Your task to perform on an android device: check google app version Image 0: 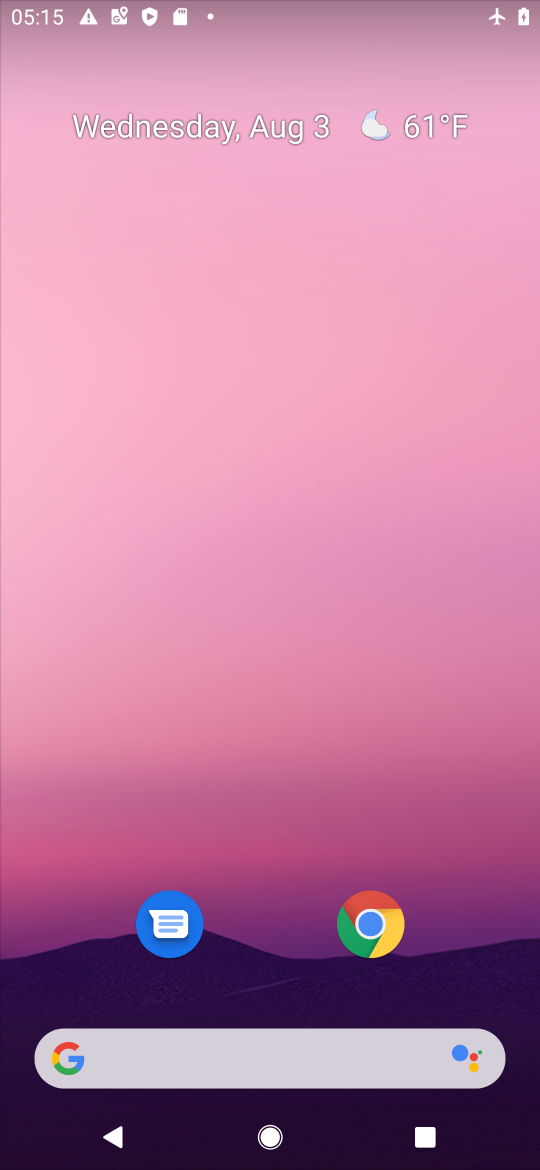
Step 0: press back button
Your task to perform on an android device: check google app version Image 1: 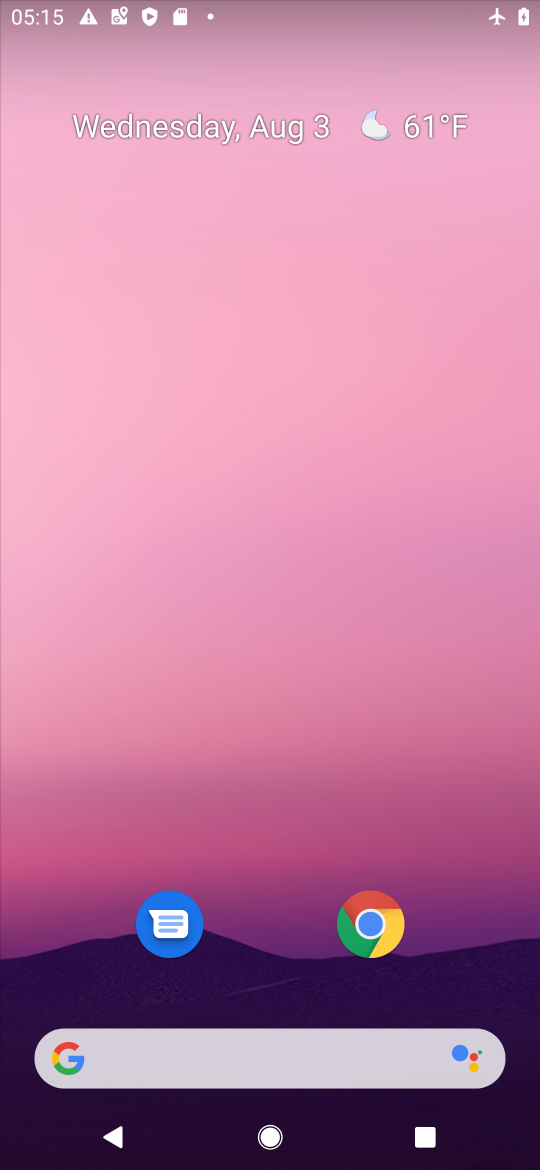
Step 1: drag from (298, 971) to (293, 378)
Your task to perform on an android device: check google app version Image 2: 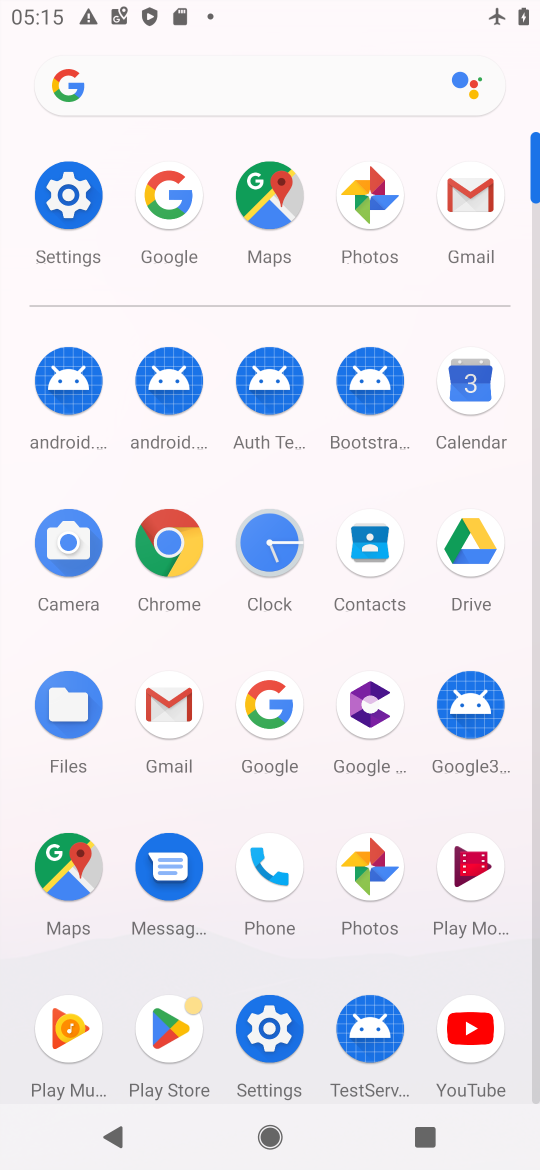
Step 2: click (179, 215)
Your task to perform on an android device: check google app version Image 3: 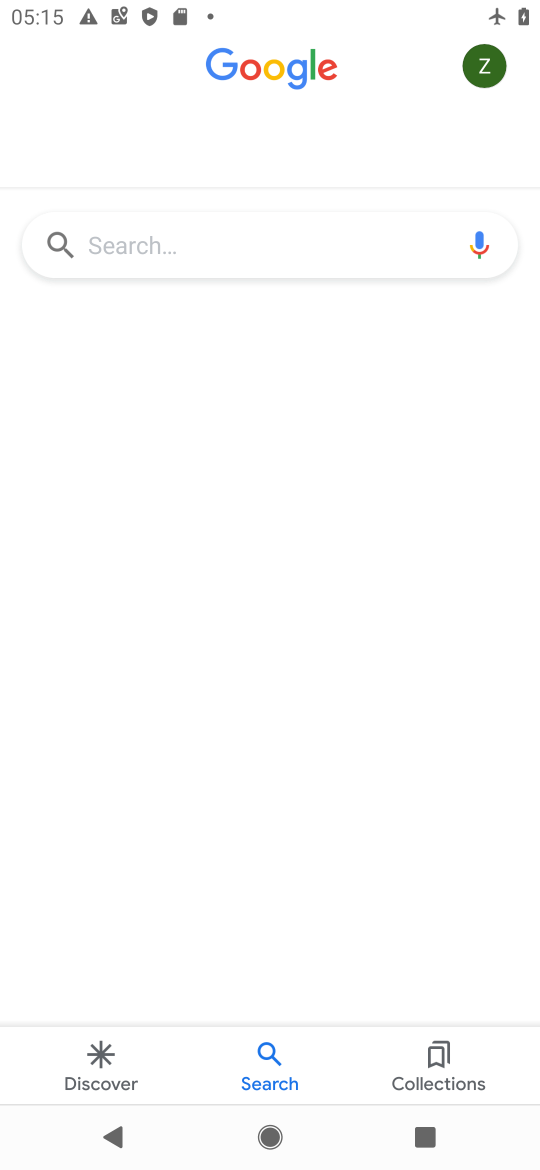
Step 3: click (484, 76)
Your task to perform on an android device: check google app version Image 4: 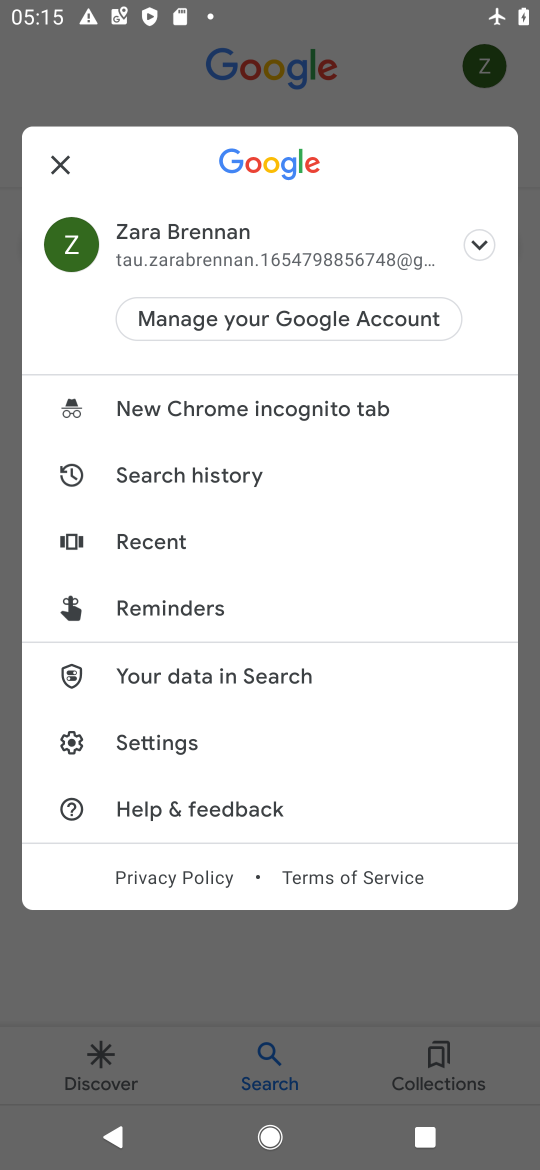
Step 4: click (179, 750)
Your task to perform on an android device: check google app version Image 5: 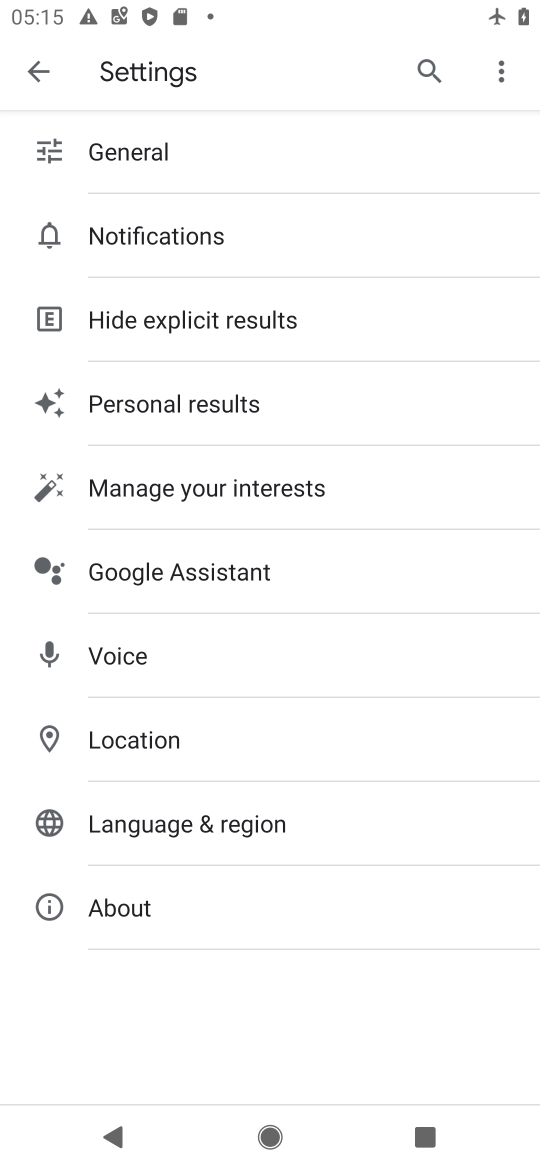
Step 5: click (238, 897)
Your task to perform on an android device: check google app version Image 6: 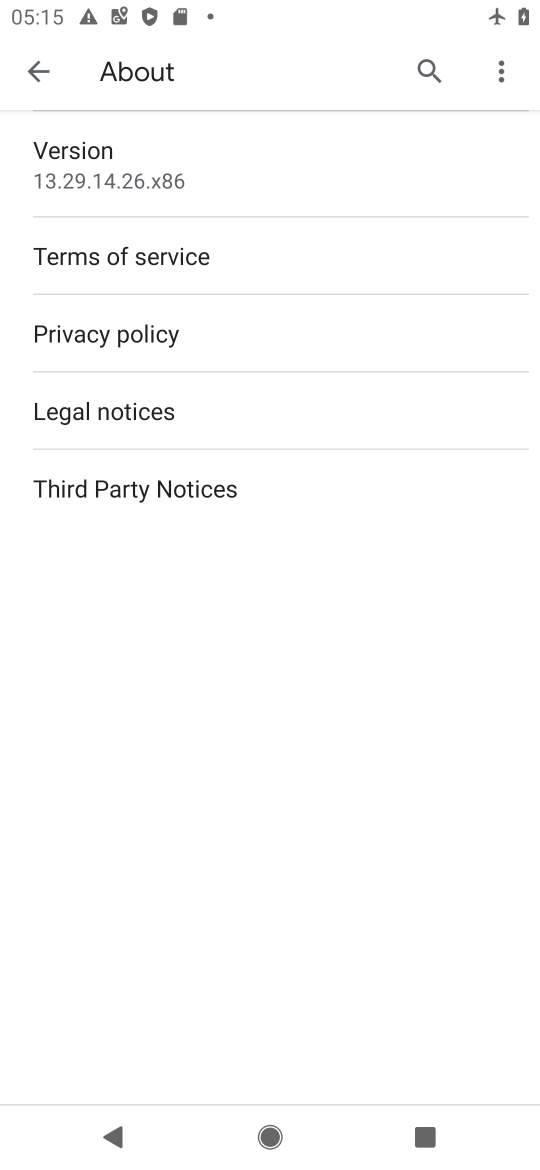
Step 6: click (177, 189)
Your task to perform on an android device: check google app version Image 7: 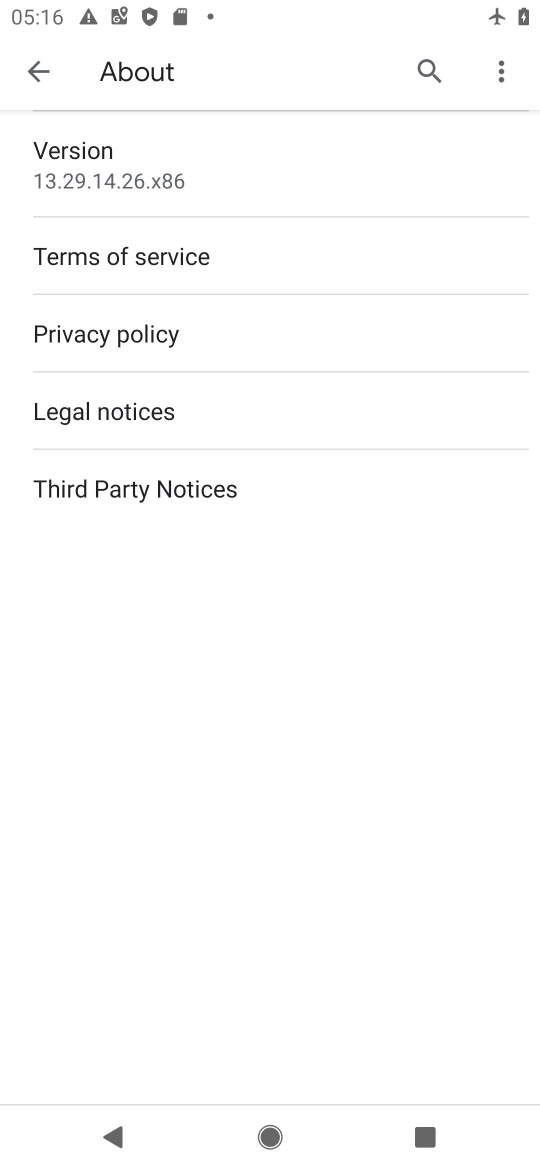
Step 7: task complete